Your task to perform on an android device: turn on translation in the chrome app Image 0: 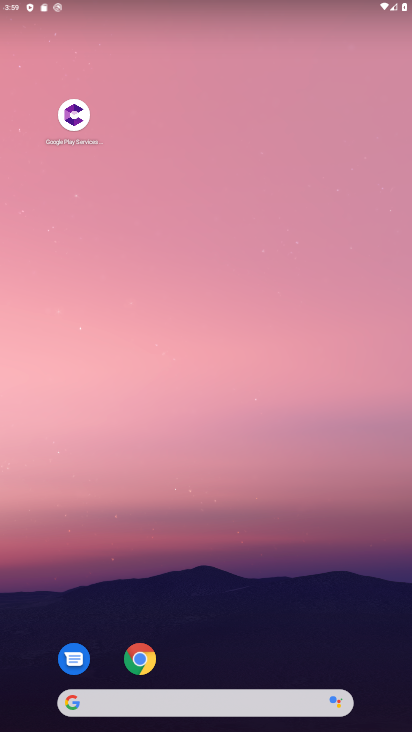
Step 0: click (140, 661)
Your task to perform on an android device: turn on translation in the chrome app Image 1: 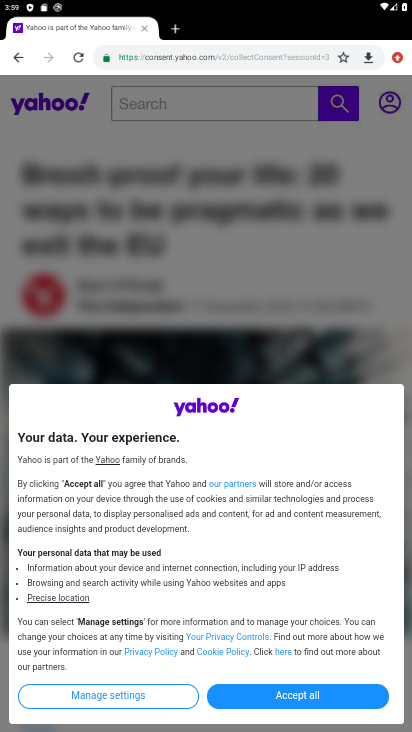
Step 1: click (397, 49)
Your task to perform on an android device: turn on translation in the chrome app Image 2: 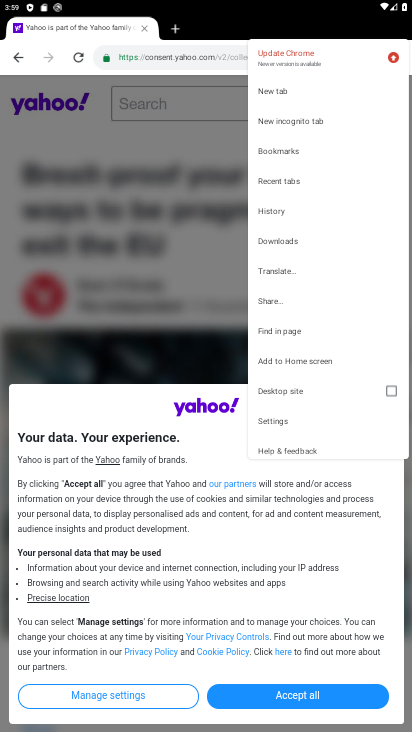
Step 2: click (295, 414)
Your task to perform on an android device: turn on translation in the chrome app Image 3: 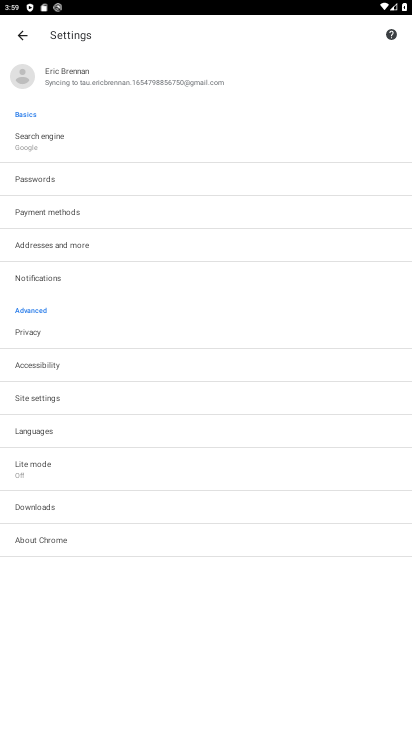
Step 3: click (67, 423)
Your task to perform on an android device: turn on translation in the chrome app Image 4: 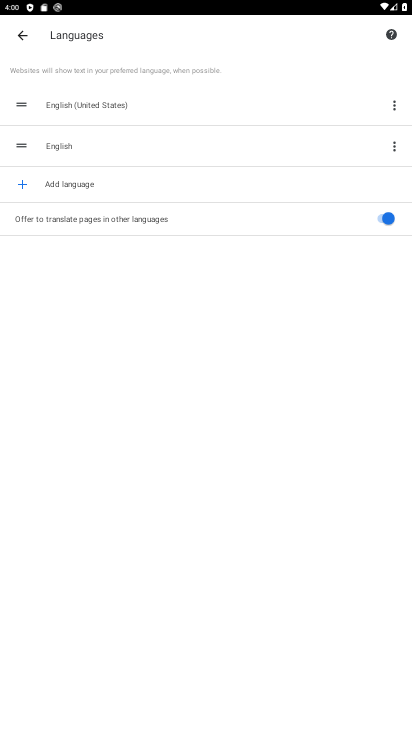
Step 4: task complete